Your task to perform on an android device: delete location history Image 0: 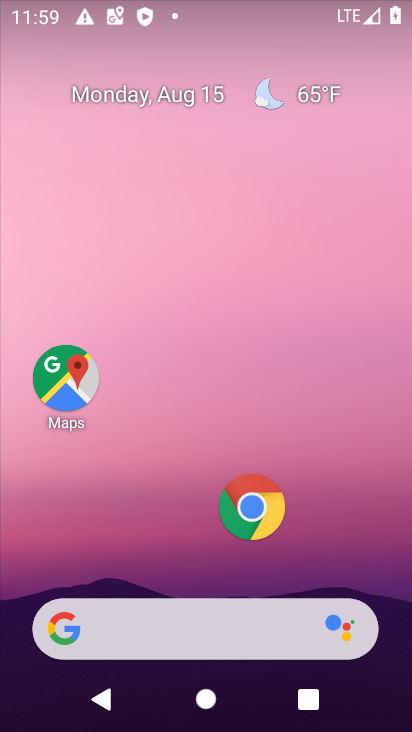
Step 0: click (68, 388)
Your task to perform on an android device: delete location history Image 1: 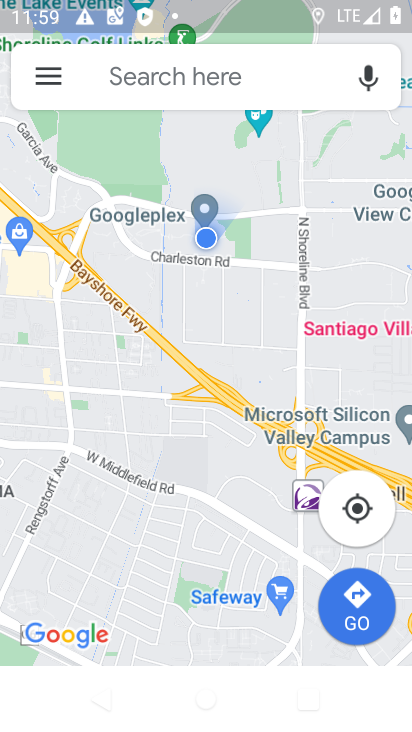
Step 1: click (47, 73)
Your task to perform on an android device: delete location history Image 2: 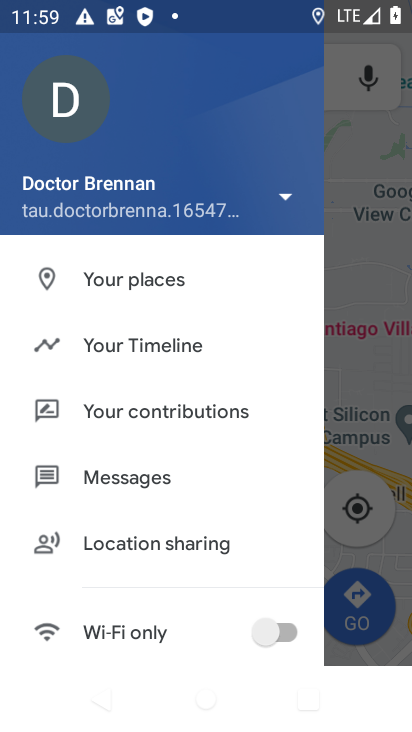
Step 2: click (116, 341)
Your task to perform on an android device: delete location history Image 3: 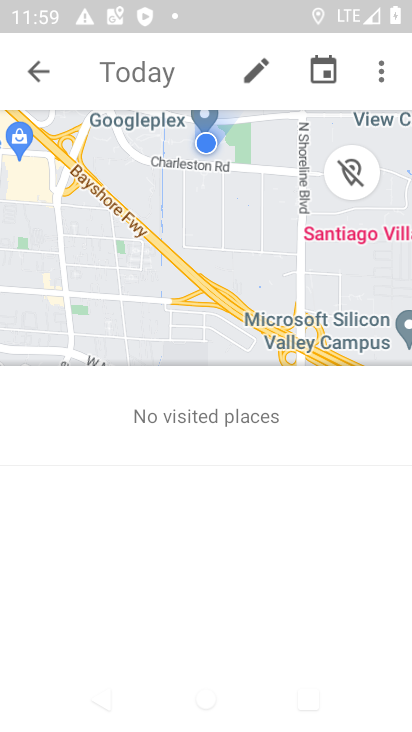
Step 3: click (385, 66)
Your task to perform on an android device: delete location history Image 4: 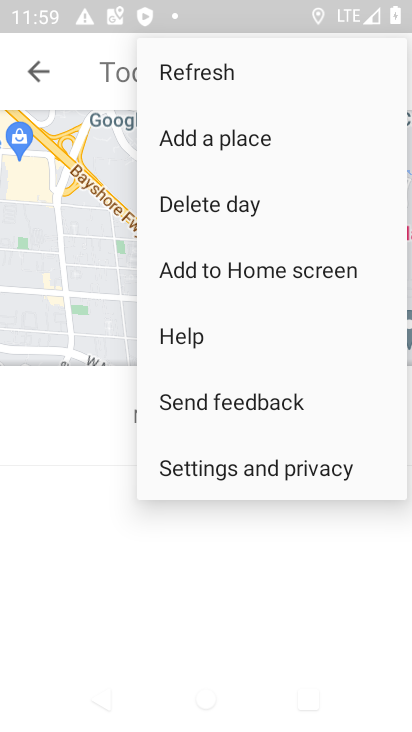
Step 4: click (269, 464)
Your task to perform on an android device: delete location history Image 5: 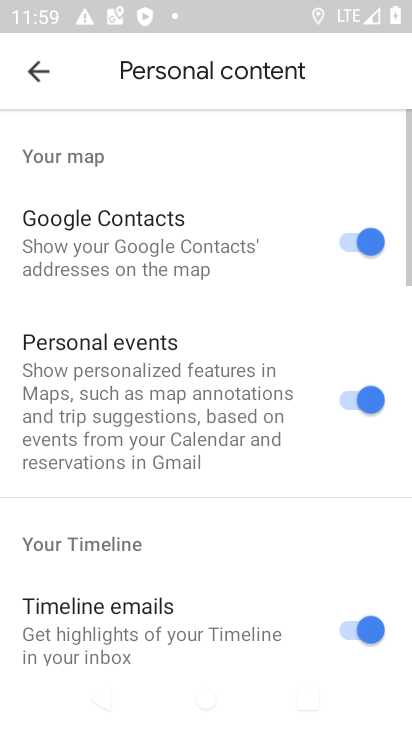
Step 5: click (202, 143)
Your task to perform on an android device: delete location history Image 6: 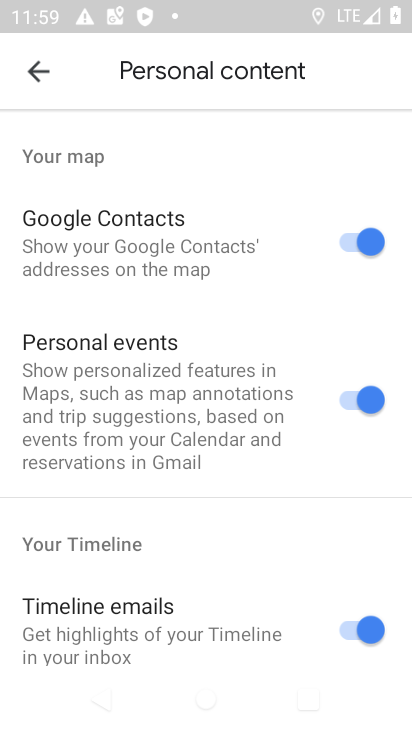
Step 6: drag from (207, 534) to (170, 247)
Your task to perform on an android device: delete location history Image 7: 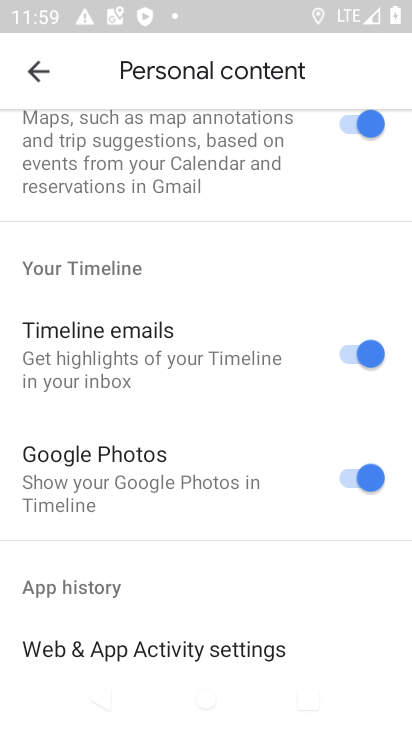
Step 7: drag from (185, 565) to (167, 164)
Your task to perform on an android device: delete location history Image 8: 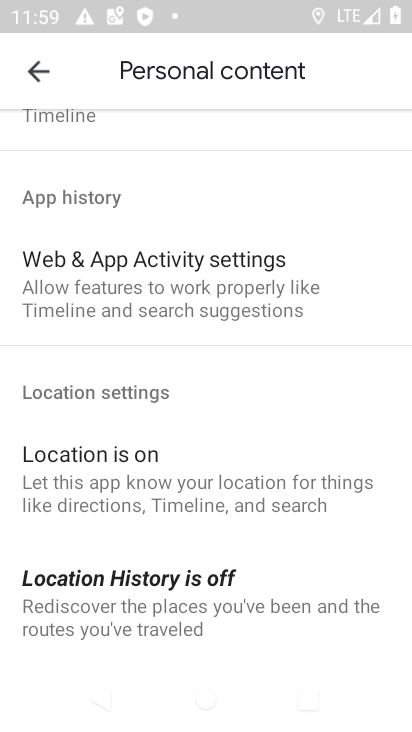
Step 8: drag from (180, 535) to (179, 262)
Your task to perform on an android device: delete location history Image 9: 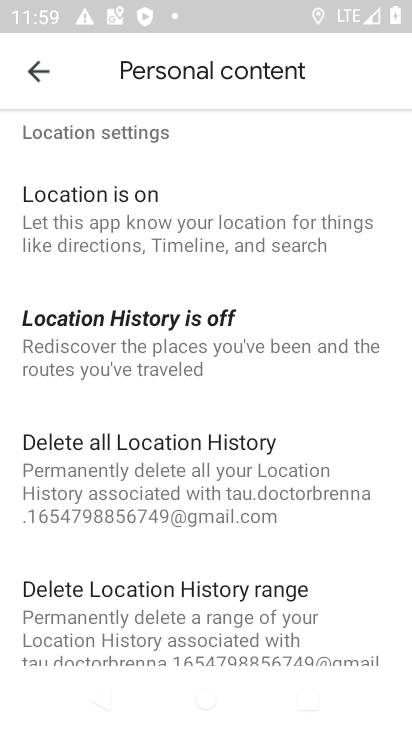
Step 9: click (167, 441)
Your task to perform on an android device: delete location history Image 10: 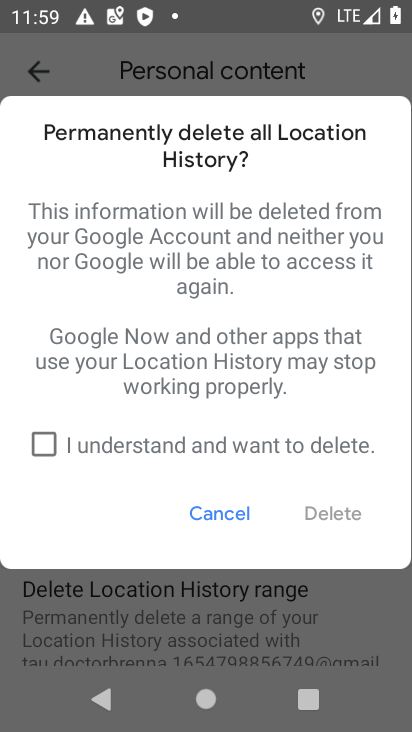
Step 10: click (44, 436)
Your task to perform on an android device: delete location history Image 11: 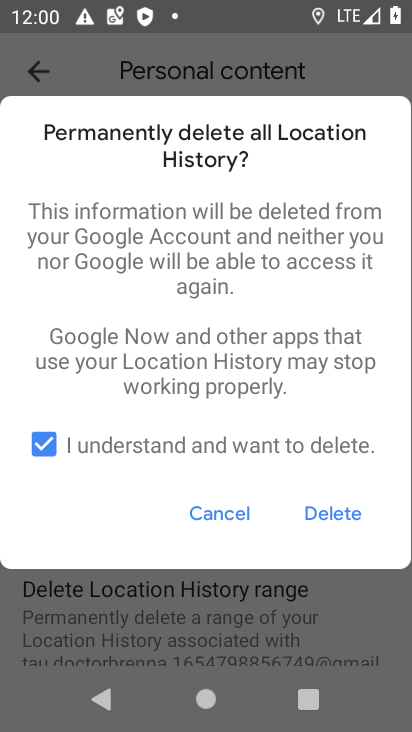
Step 11: click (327, 516)
Your task to perform on an android device: delete location history Image 12: 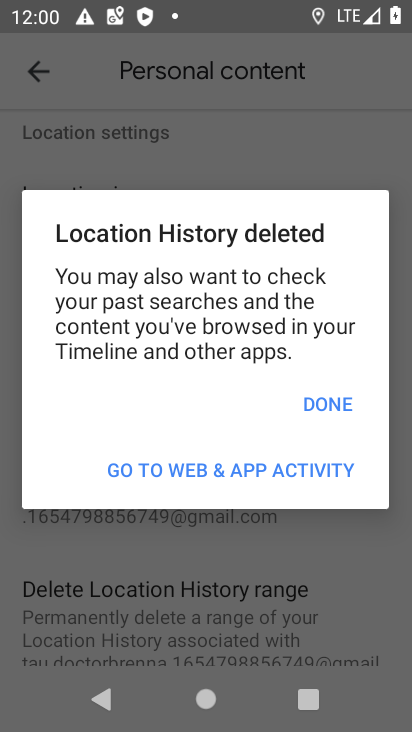
Step 12: click (322, 401)
Your task to perform on an android device: delete location history Image 13: 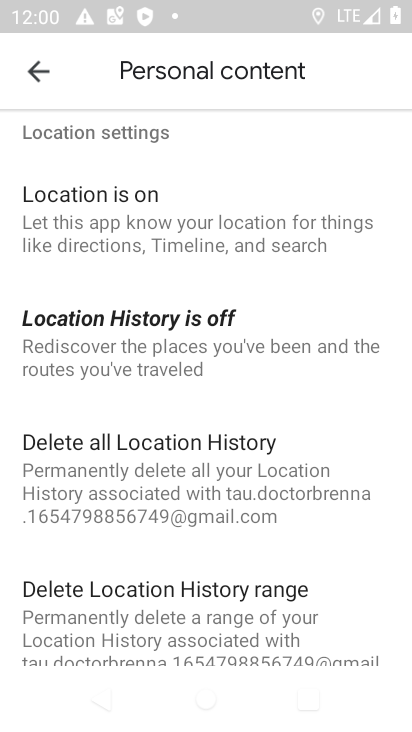
Step 13: task complete